Your task to perform on an android device: Open Android settings Image 0: 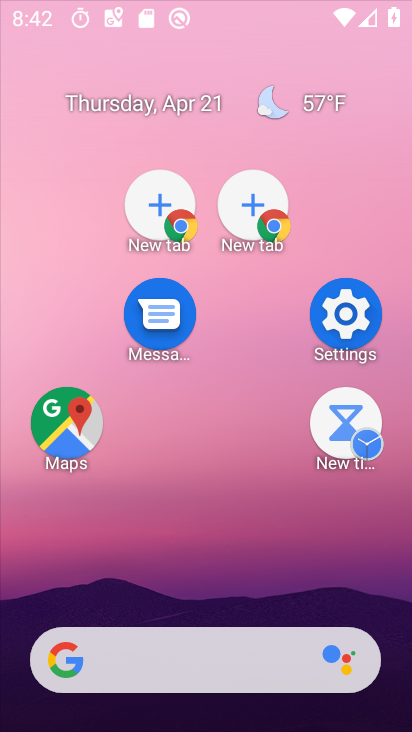
Step 0: drag from (326, 682) to (274, 126)
Your task to perform on an android device: Open Android settings Image 1: 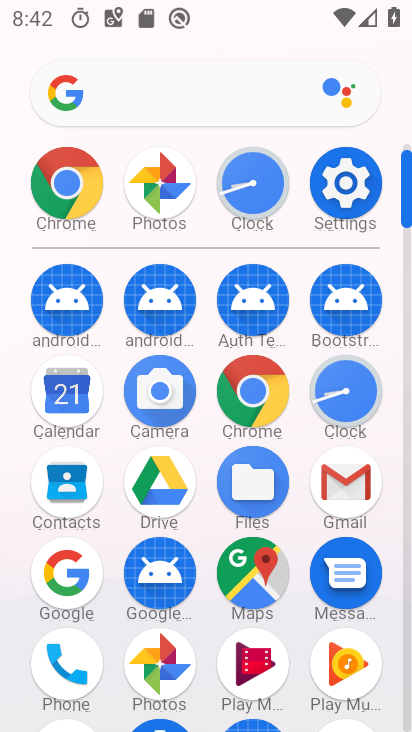
Step 1: drag from (225, 397) to (173, 114)
Your task to perform on an android device: Open Android settings Image 2: 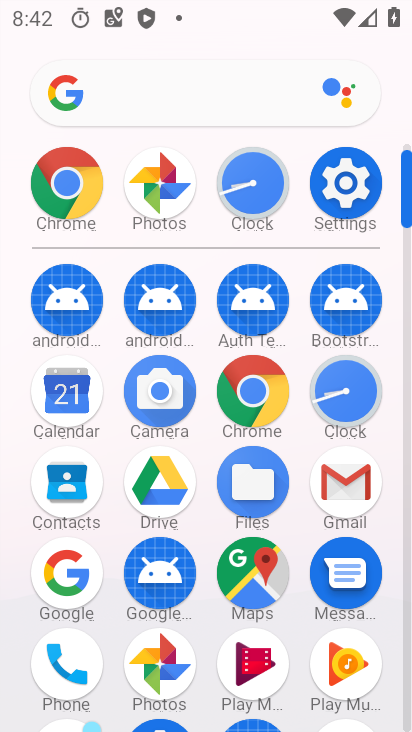
Step 2: click (347, 181)
Your task to perform on an android device: Open Android settings Image 3: 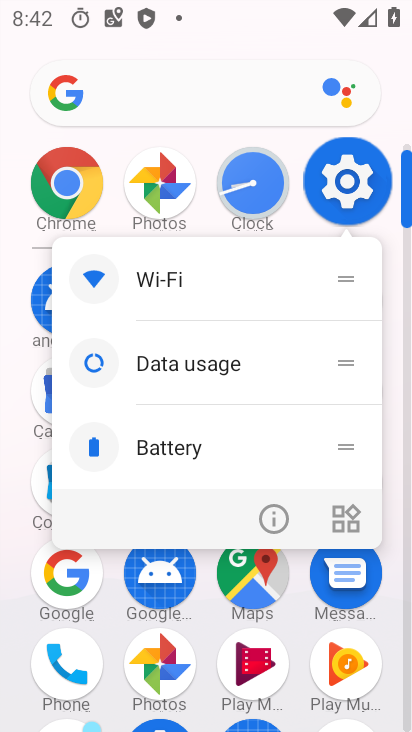
Step 3: click (352, 175)
Your task to perform on an android device: Open Android settings Image 4: 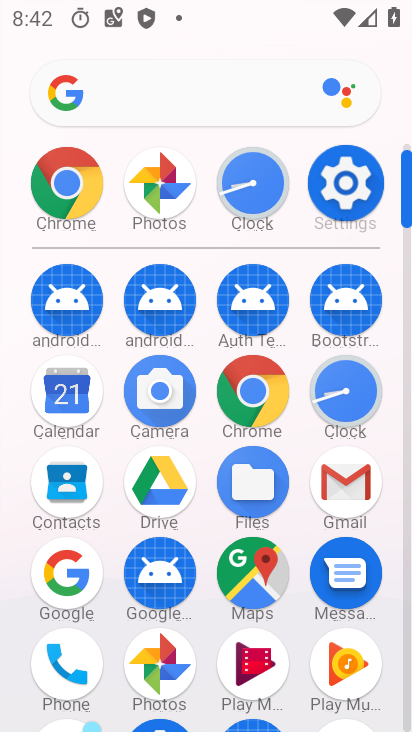
Step 4: click (354, 173)
Your task to perform on an android device: Open Android settings Image 5: 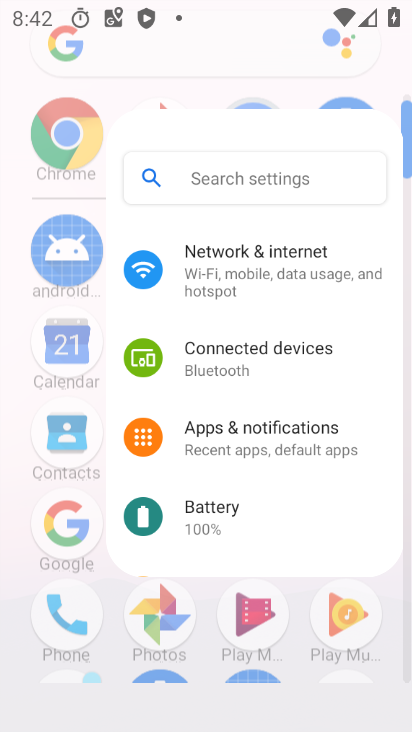
Step 5: click (355, 174)
Your task to perform on an android device: Open Android settings Image 6: 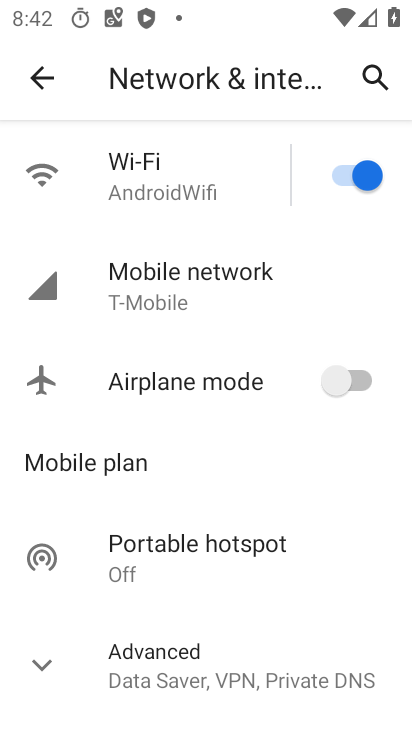
Step 6: drag from (239, 589) to (179, 215)
Your task to perform on an android device: Open Android settings Image 7: 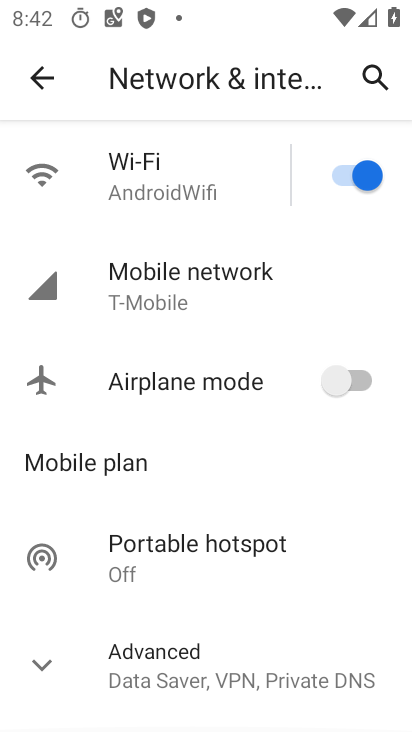
Step 7: drag from (174, 461) to (168, 190)
Your task to perform on an android device: Open Android settings Image 8: 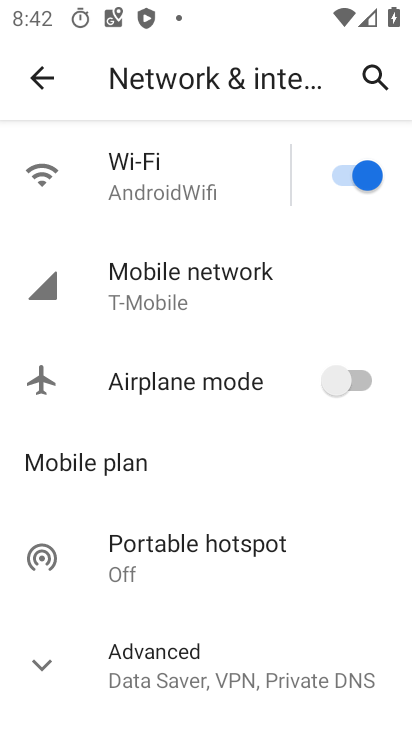
Step 8: drag from (184, 562) to (191, 271)
Your task to perform on an android device: Open Android settings Image 9: 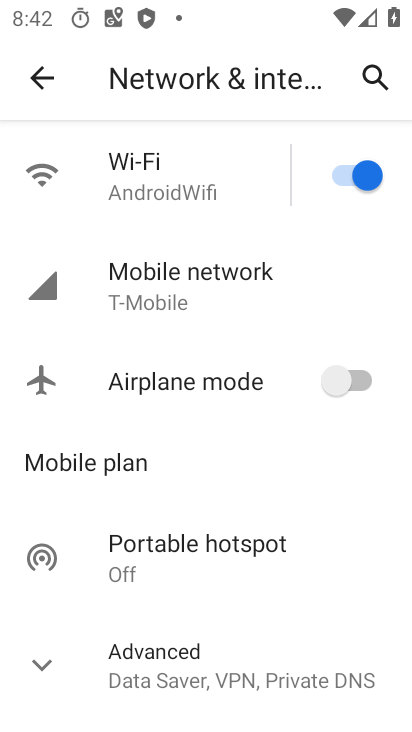
Step 9: click (41, 76)
Your task to perform on an android device: Open Android settings Image 10: 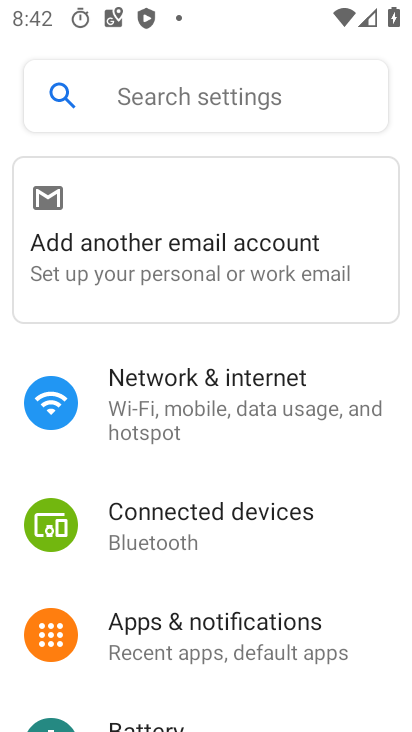
Step 10: drag from (174, 481) to (162, 278)
Your task to perform on an android device: Open Android settings Image 11: 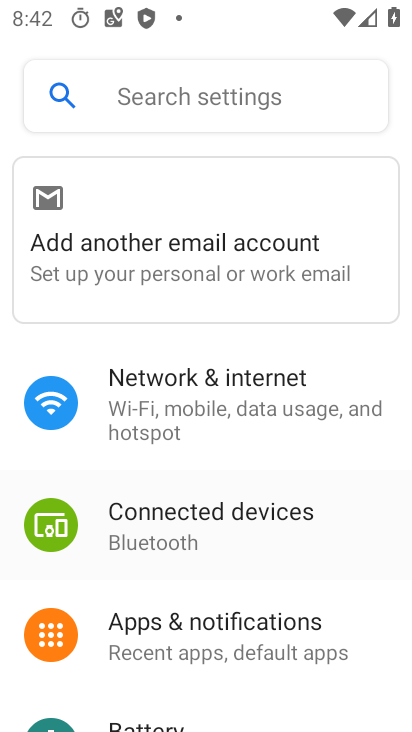
Step 11: drag from (181, 451) to (169, 331)
Your task to perform on an android device: Open Android settings Image 12: 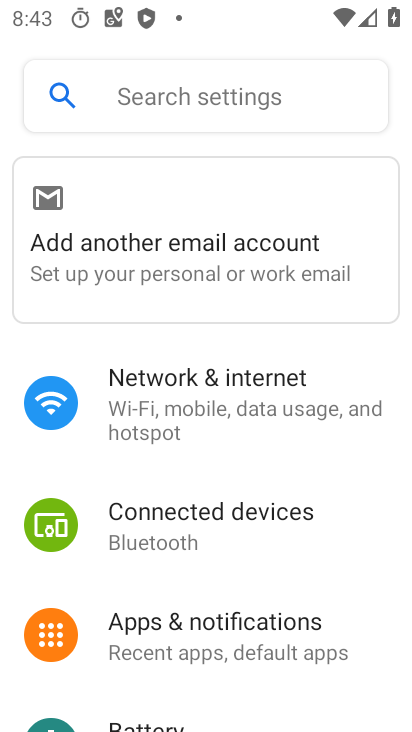
Step 12: drag from (250, 572) to (209, 308)
Your task to perform on an android device: Open Android settings Image 13: 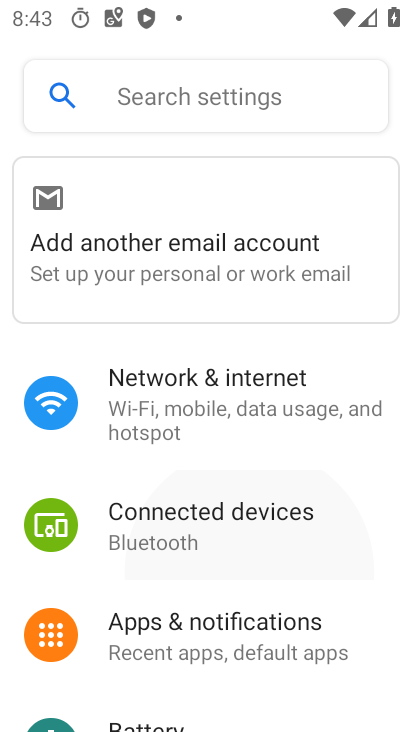
Step 13: drag from (257, 512) to (235, 260)
Your task to perform on an android device: Open Android settings Image 14: 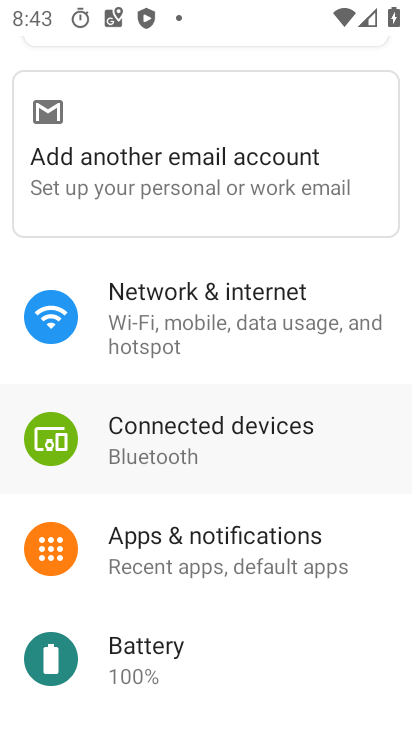
Step 14: drag from (289, 526) to (261, 286)
Your task to perform on an android device: Open Android settings Image 15: 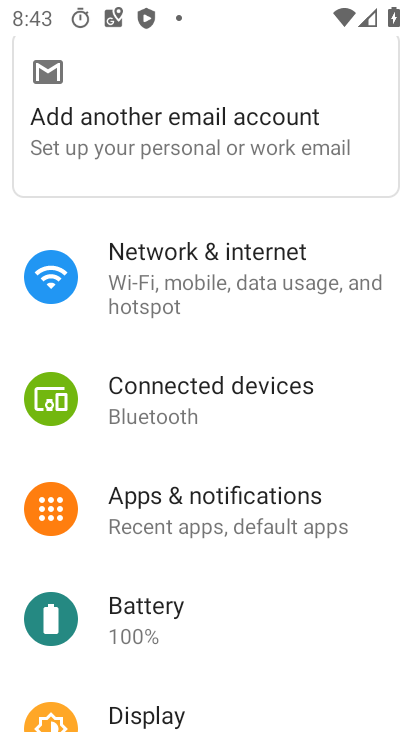
Step 15: drag from (177, 596) to (153, 213)
Your task to perform on an android device: Open Android settings Image 16: 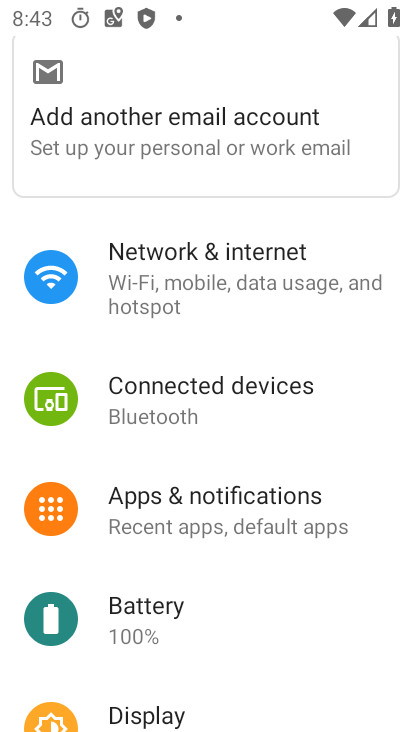
Step 16: drag from (229, 206) to (202, 322)
Your task to perform on an android device: Open Android settings Image 17: 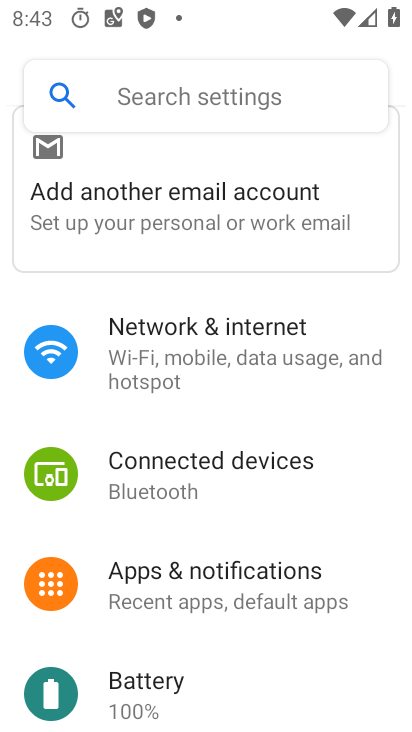
Step 17: drag from (220, 147) to (198, 211)
Your task to perform on an android device: Open Android settings Image 18: 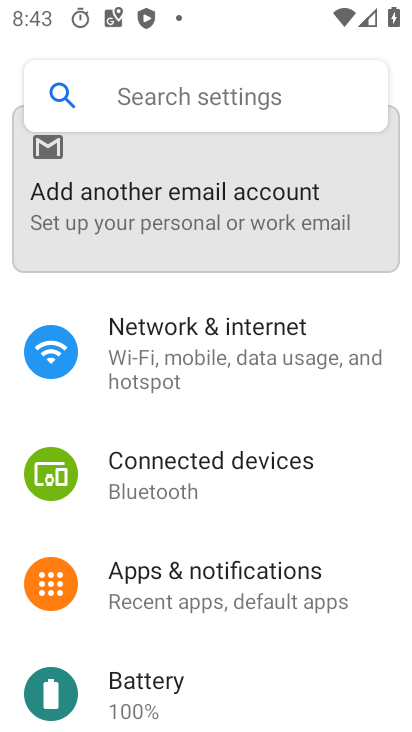
Step 18: drag from (193, 220) to (259, 35)
Your task to perform on an android device: Open Android settings Image 19: 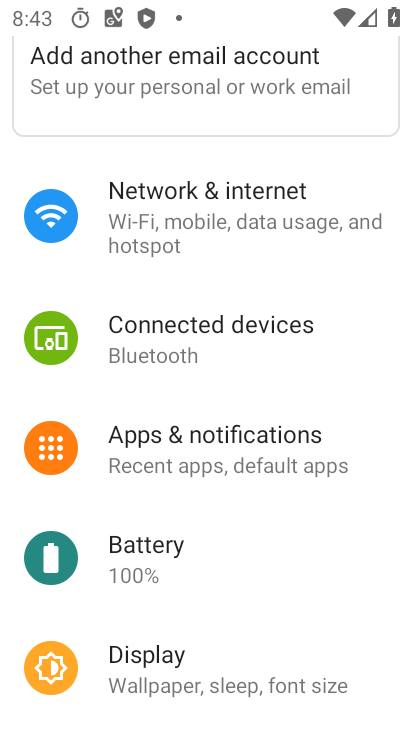
Step 19: drag from (125, 354) to (153, 220)
Your task to perform on an android device: Open Android settings Image 20: 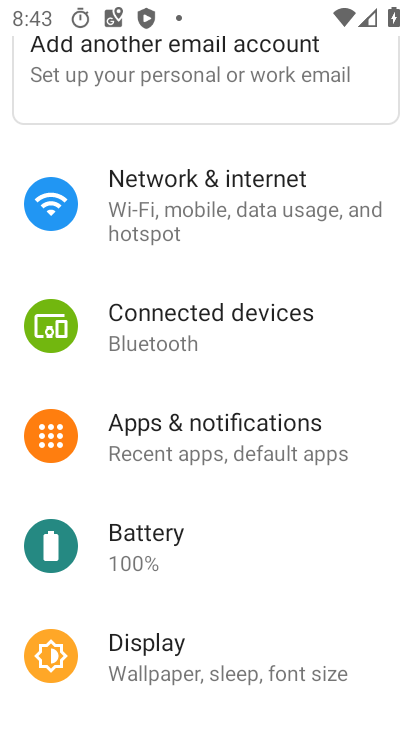
Step 20: click (181, 250)
Your task to perform on an android device: Open Android settings Image 21: 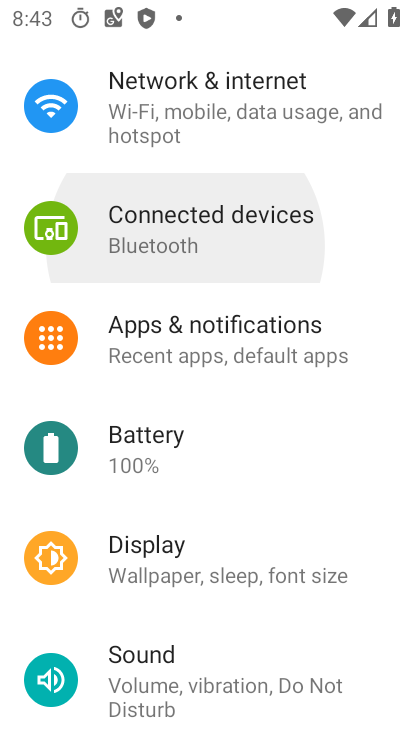
Step 21: drag from (202, 254) to (213, 195)
Your task to perform on an android device: Open Android settings Image 22: 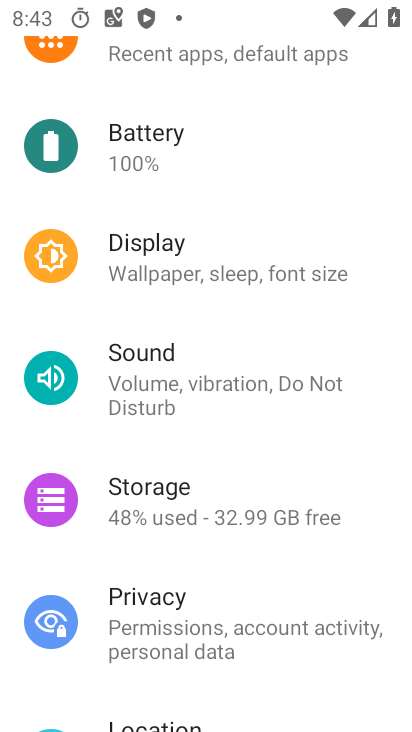
Step 22: drag from (222, 596) to (214, 185)
Your task to perform on an android device: Open Android settings Image 23: 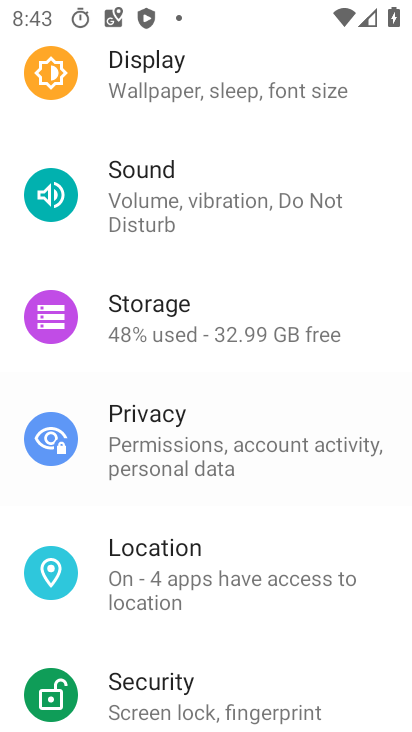
Step 23: drag from (256, 528) to (246, 208)
Your task to perform on an android device: Open Android settings Image 24: 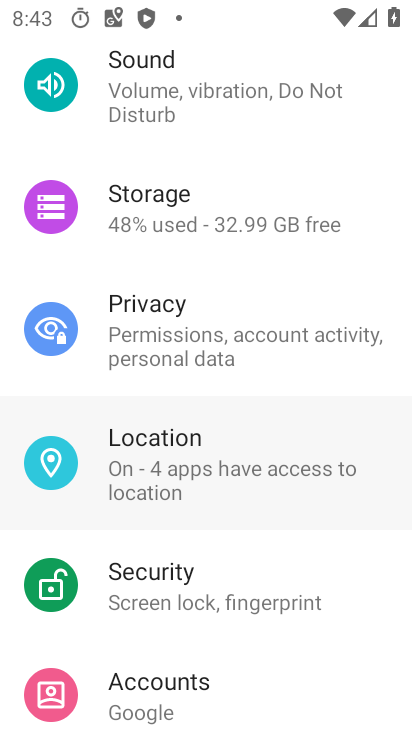
Step 24: drag from (177, 285) to (162, 177)
Your task to perform on an android device: Open Android settings Image 25: 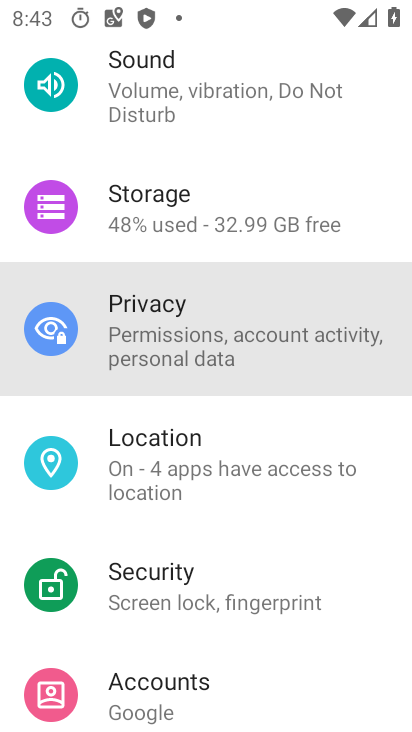
Step 25: drag from (175, 396) to (175, 127)
Your task to perform on an android device: Open Android settings Image 26: 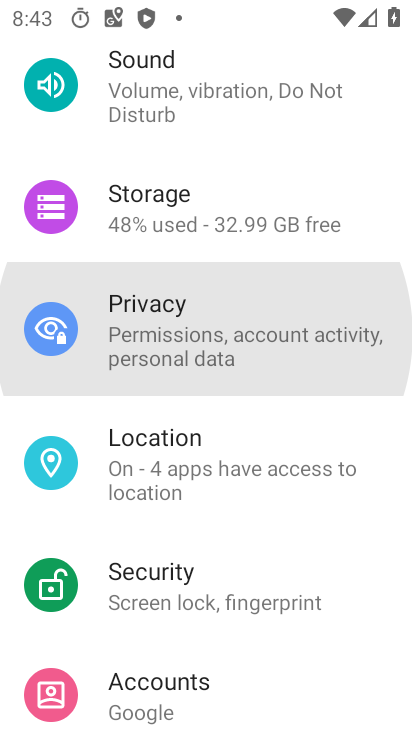
Step 26: drag from (238, 319) to (168, 72)
Your task to perform on an android device: Open Android settings Image 27: 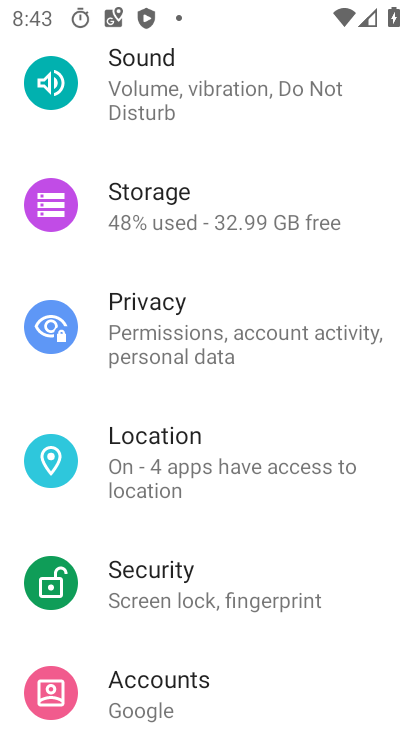
Step 27: drag from (229, 585) to (215, 241)
Your task to perform on an android device: Open Android settings Image 28: 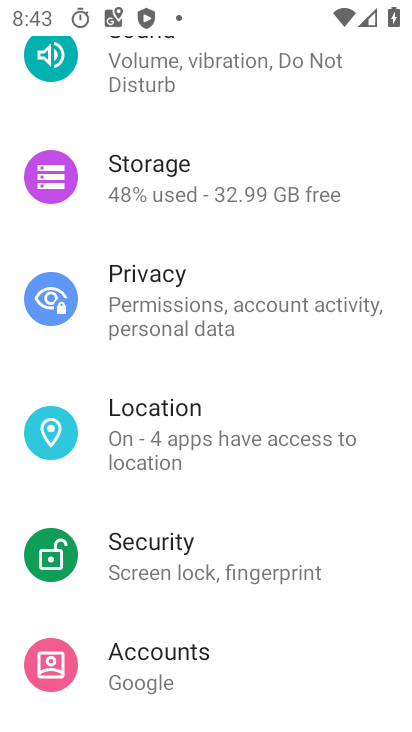
Step 28: drag from (132, 426) to (109, 249)
Your task to perform on an android device: Open Android settings Image 29: 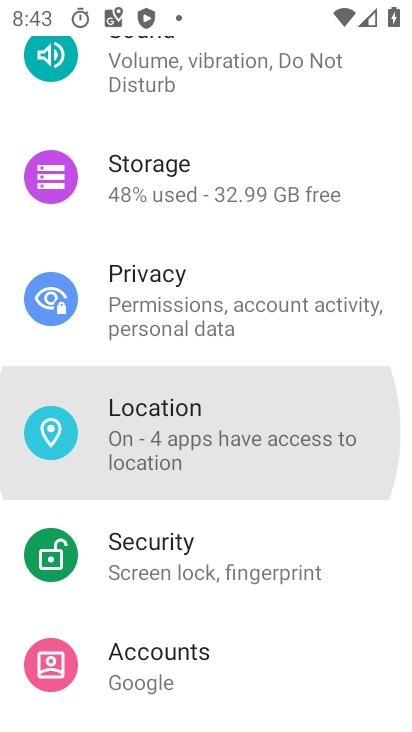
Step 29: drag from (190, 589) to (132, 62)
Your task to perform on an android device: Open Android settings Image 30: 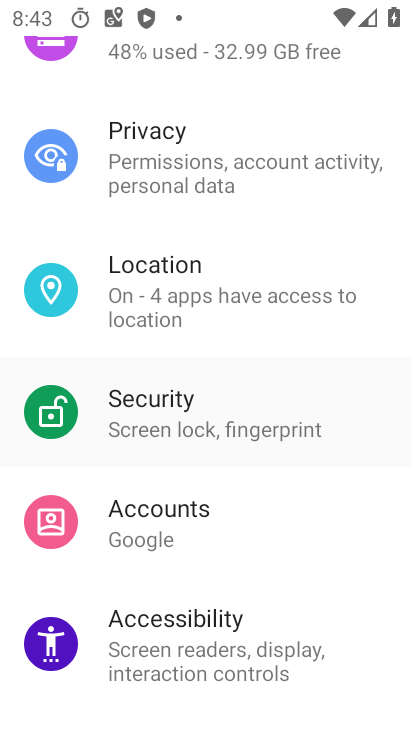
Step 30: drag from (196, 284) to (160, 136)
Your task to perform on an android device: Open Android settings Image 31: 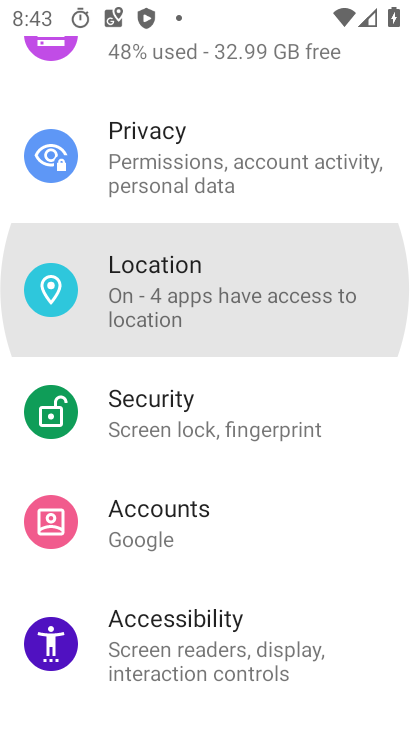
Step 31: drag from (212, 426) to (187, 120)
Your task to perform on an android device: Open Android settings Image 32: 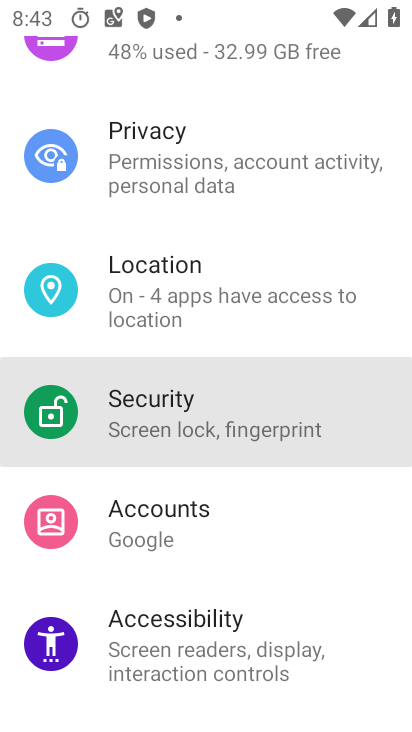
Step 32: drag from (184, 477) to (222, 91)
Your task to perform on an android device: Open Android settings Image 33: 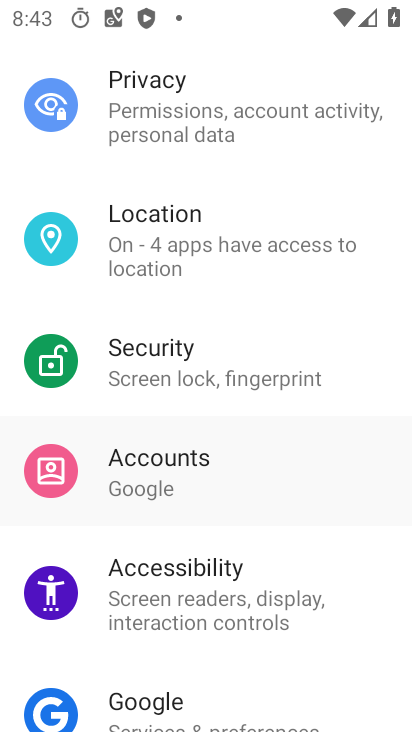
Step 33: drag from (278, 492) to (278, 101)
Your task to perform on an android device: Open Android settings Image 34: 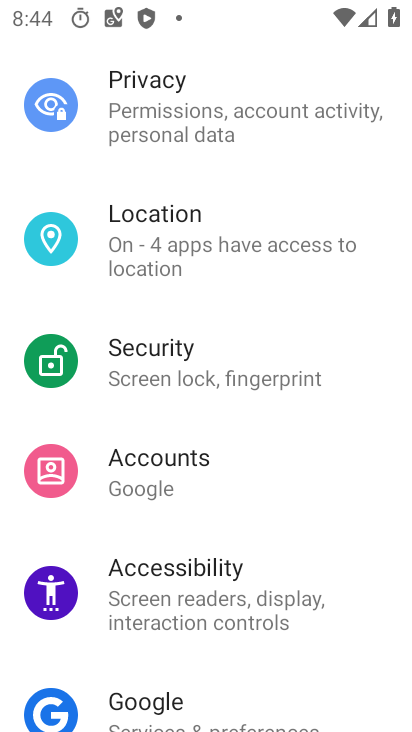
Step 34: drag from (238, 539) to (233, 204)
Your task to perform on an android device: Open Android settings Image 35: 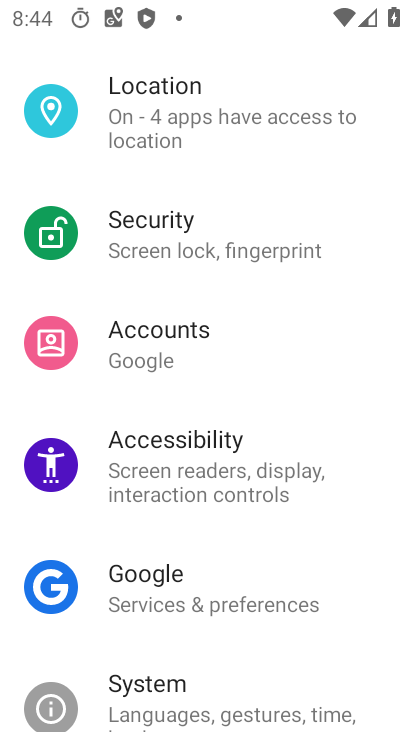
Step 35: drag from (222, 268) to (214, 104)
Your task to perform on an android device: Open Android settings Image 36: 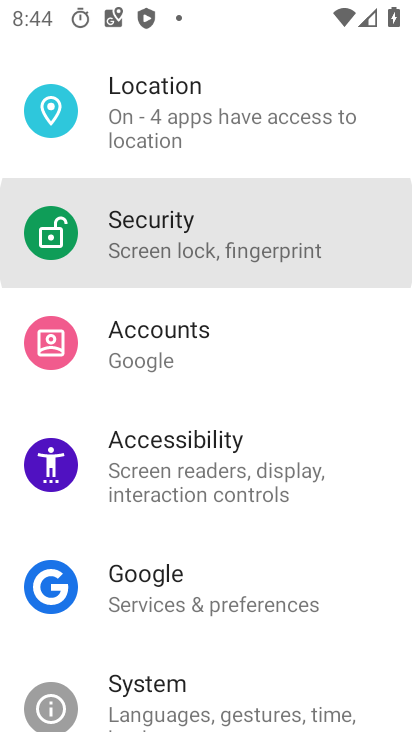
Step 36: drag from (165, 64) to (161, 23)
Your task to perform on an android device: Open Android settings Image 37: 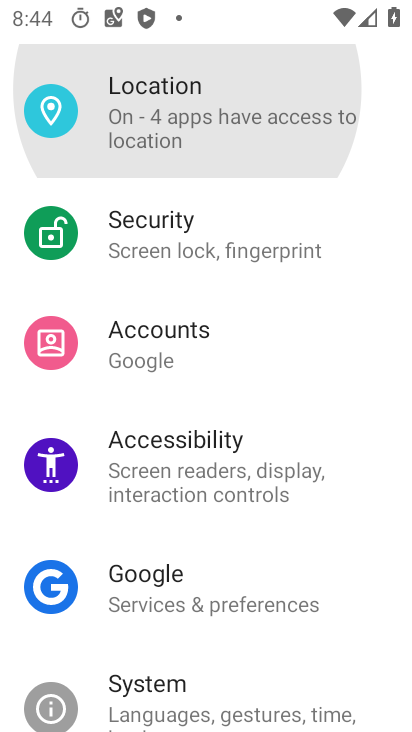
Step 37: drag from (189, 439) to (189, 74)
Your task to perform on an android device: Open Android settings Image 38: 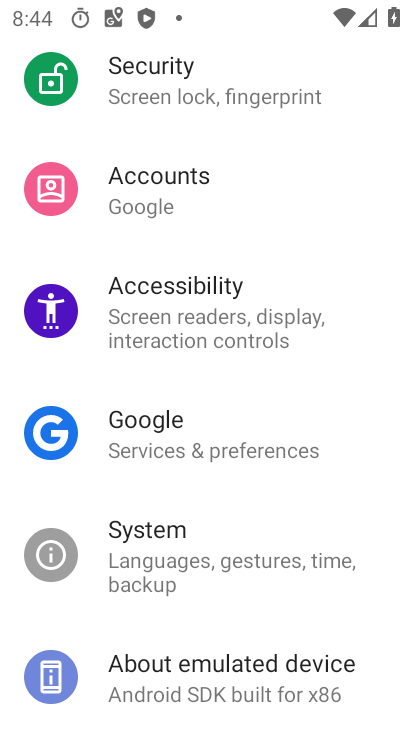
Step 38: drag from (250, 637) to (241, 175)
Your task to perform on an android device: Open Android settings Image 39: 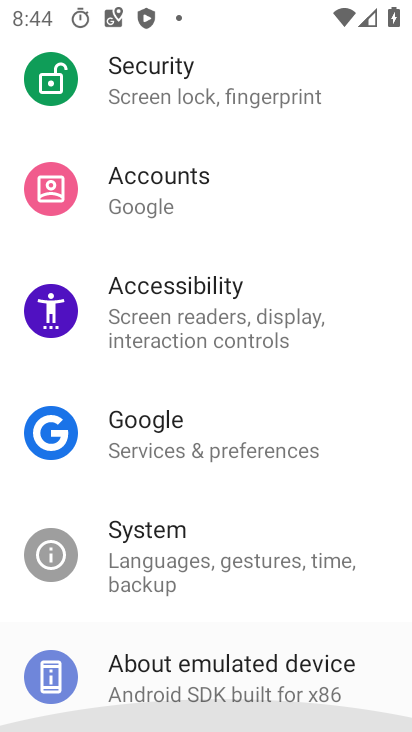
Step 39: drag from (225, 260) to (225, 153)
Your task to perform on an android device: Open Android settings Image 40: 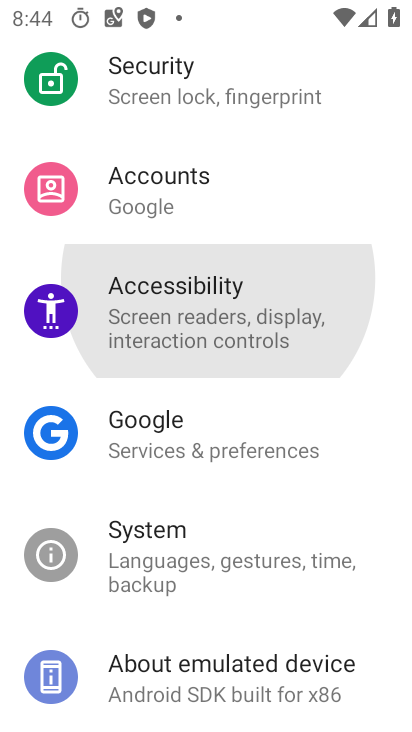
Step 40: drag from (216, 420) to (197, 89)
Your task to perform on an android device: Open Android settings Image 41: 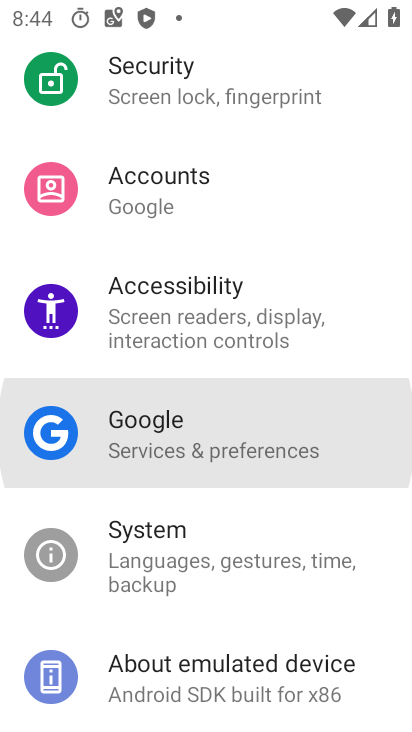
Step 41: drag from (143, 255) to (131, 75)
Your task to perform on an android device: Open Android settings Image 42: 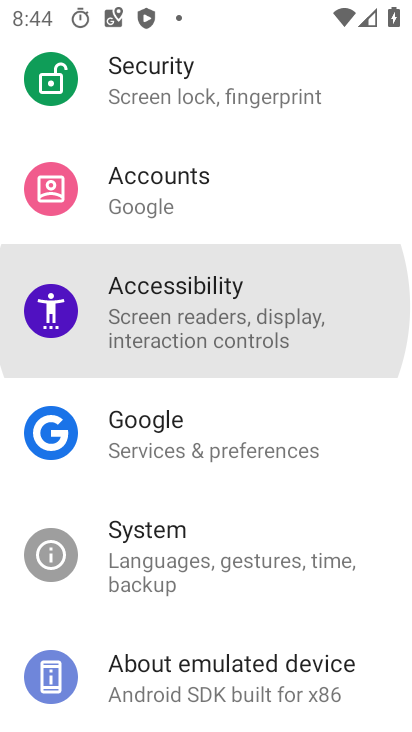
Step 42: drag from (215, 399) to (173, 73)
Your task to perform on an android device: Open Android settings Image 43: 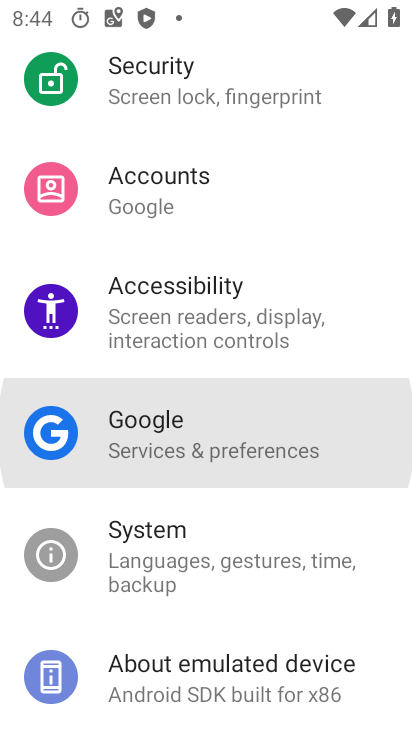
Step 43: drag from (162, 315) to (144, 61)
Your task to perform on an android device: Open Android settings Image 44: 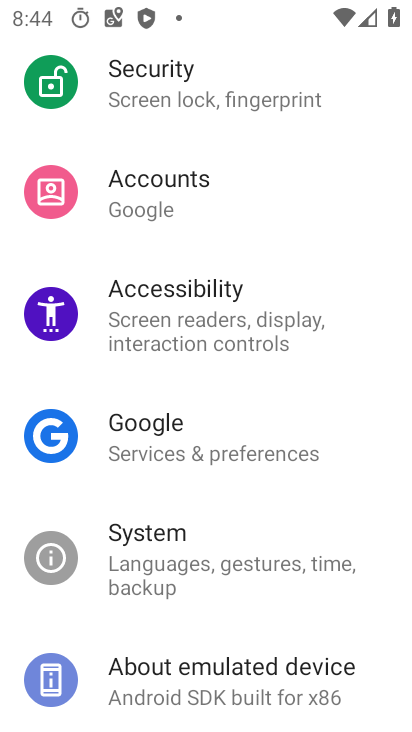
Step 44: drag from (212, 502) to (217, 140)
Your task to perform on an android device: Open Android settings Image 45: 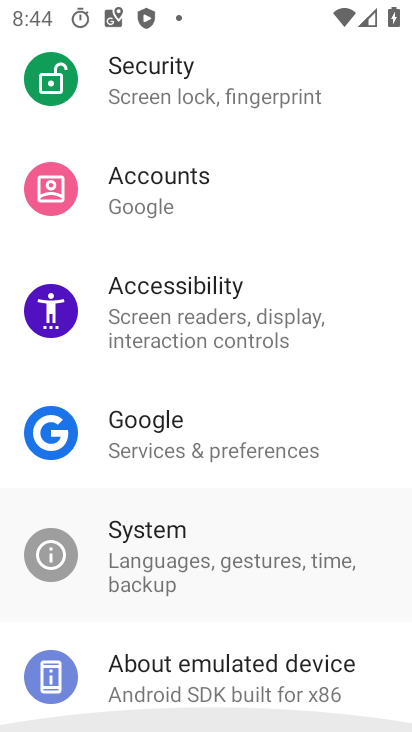
Step 45: drag from (282, 372) to (282, 200)
Your task to perform on an android device: Open Android settings Image 46: 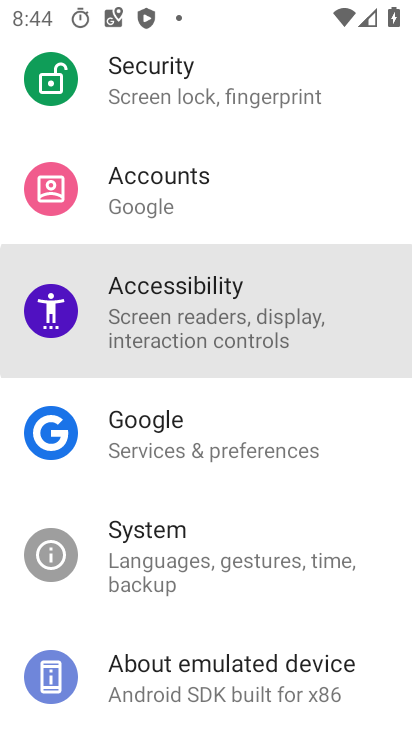
Step 46: drag from (278, 456) to (244, 151)
Your task to perform on an android device: Open Android settings Image 47: 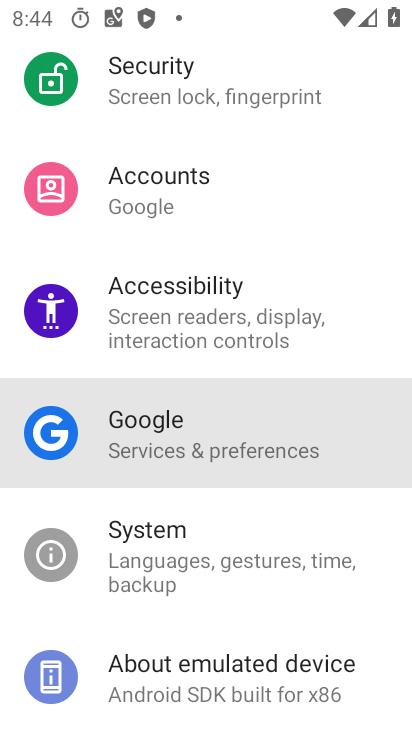
Step 47: drag from (230, 434) to (262, 166)
Your task to perform on an android device: Open Android settings Image 48: 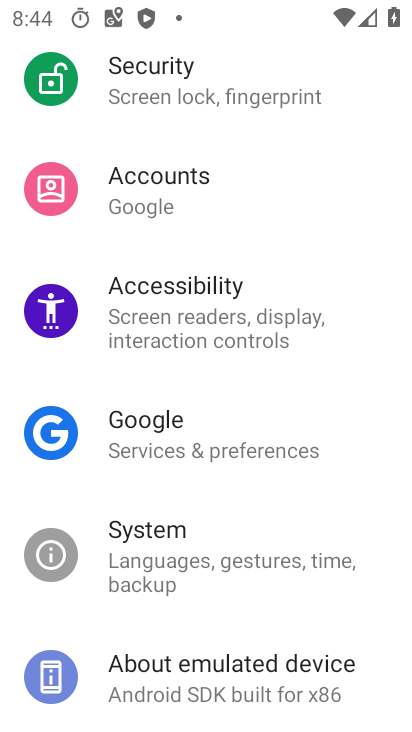
Step 48: click (194, 676)
Your task to perform on an android device: Open Android settings Image 49: 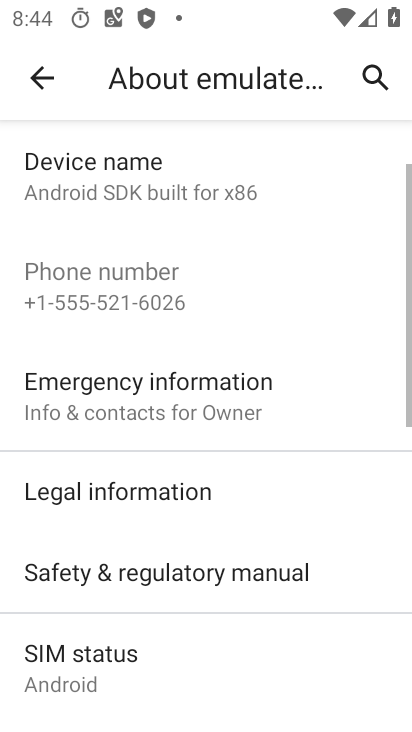
Step 49: click (36, 83)
Your task to perform on an android device: Open Android settings Image 50: 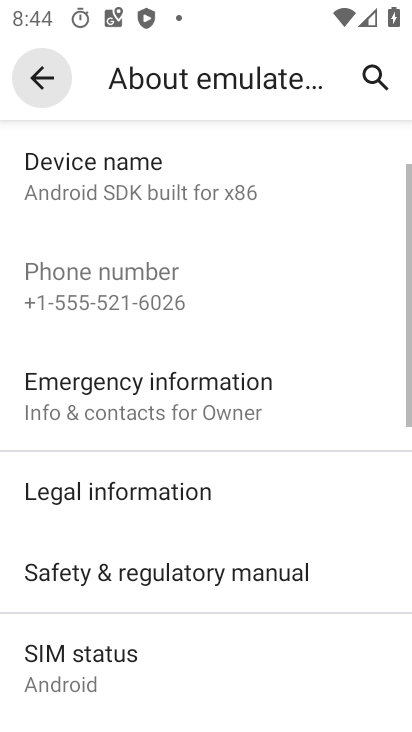
Step 50: click (43, 83)
Your task to perform on an android device: Open Android settings Image 51: 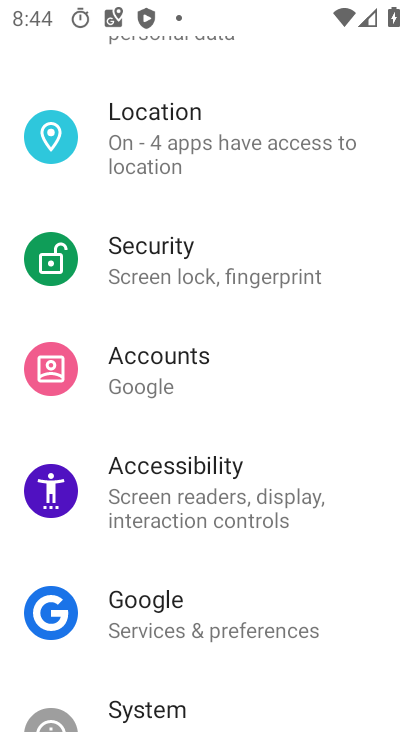
Step 51: drag from (198, 575) to (180, 147)
Your task to perform on an android device: Open Android settings Image 52: 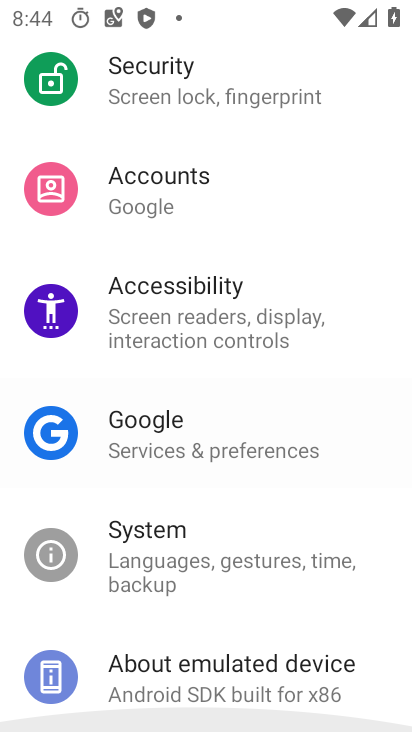
Step 52: click (192, 320)
Your task to perform on an android device: Open Android settings Image 53: 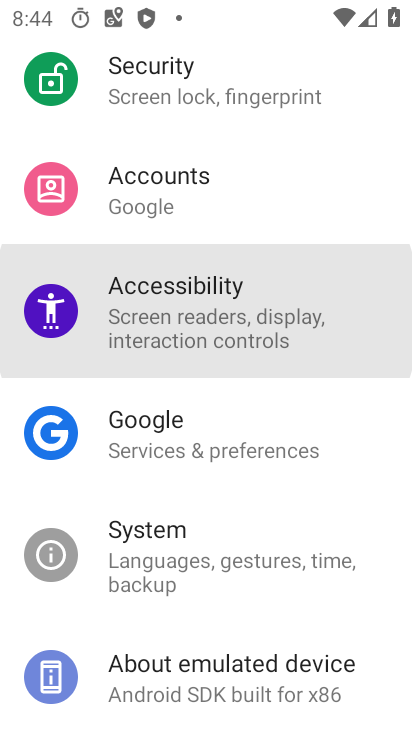
Step 53: drag from (235, 298) to (224, 177)
Your task to perform on an android device: Open Android settings Image 54: 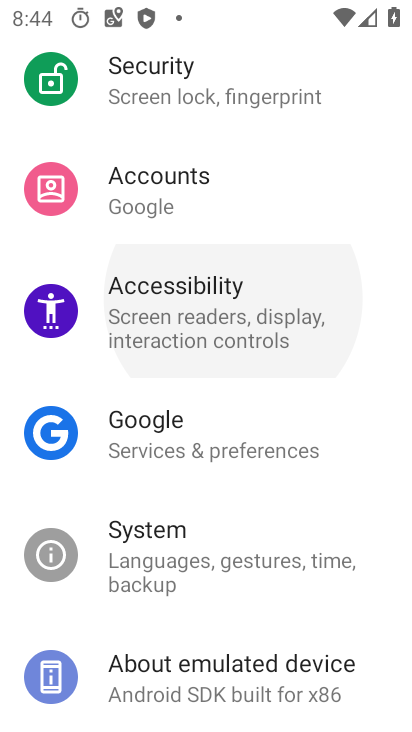
Step 54: drag from (247, 561) to (224, 107)
Your task to perform on an android device: Open Android settings Image 55: 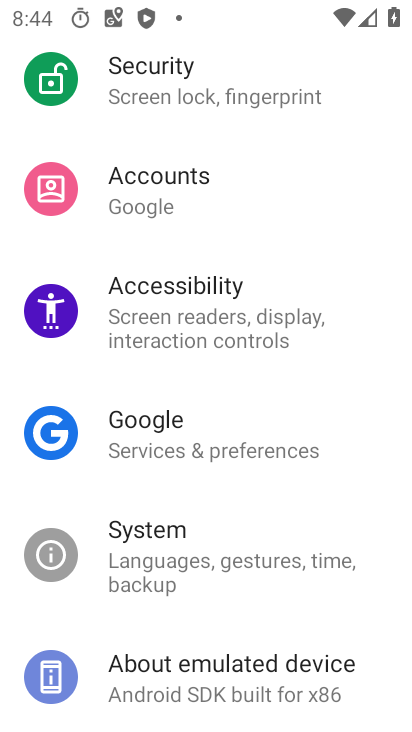
Step 55: drag from (140, 390) to (106, 624)
Your task to perform on an android device: Open Android settings Image 56: 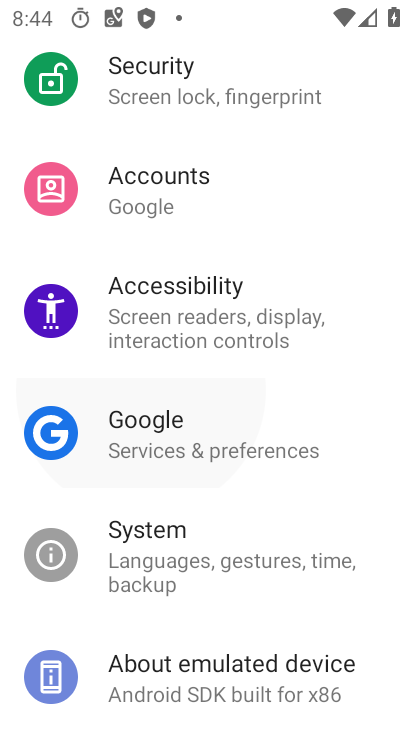
Step 56: drag from (158, 279) to (261, 729)
Your task to perform on an android device: Open Android settings Image 57: 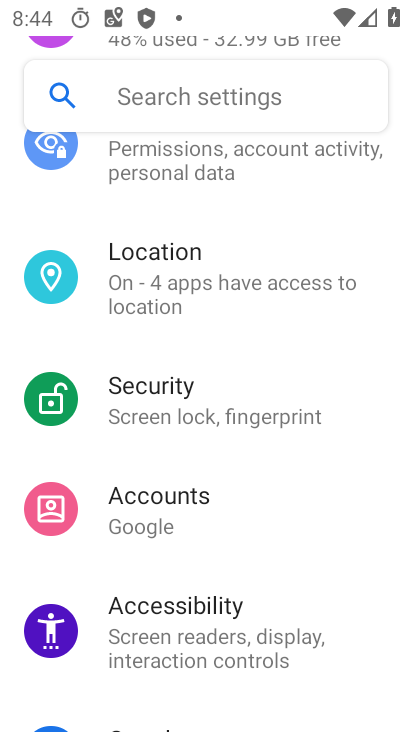
Step 57: drag from (238, 542) to (240, 182)
Your task to perform on an android device: Open Android settings Image 58: 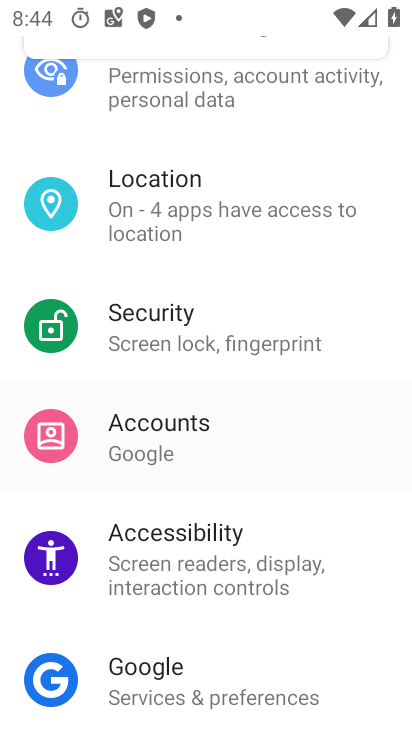
Step 58: drag from (234, 371) to (217, 143)
Your task to perform on an android device: Open Android settings Image 59: 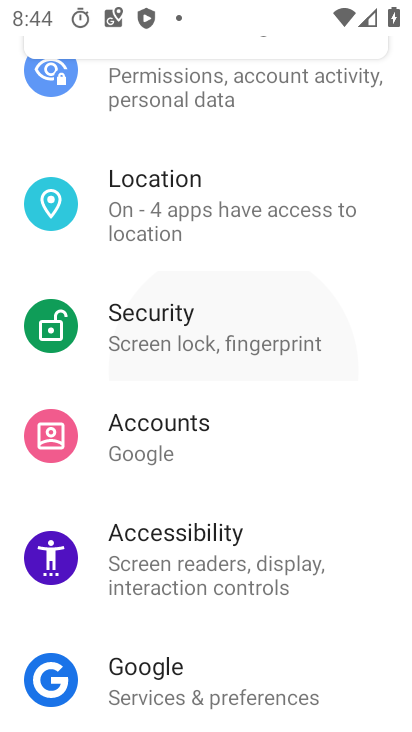
Step 59: drag from (207, 384) to (183, 62)
Your task to perform on an android device: Open Android settings Image 60: 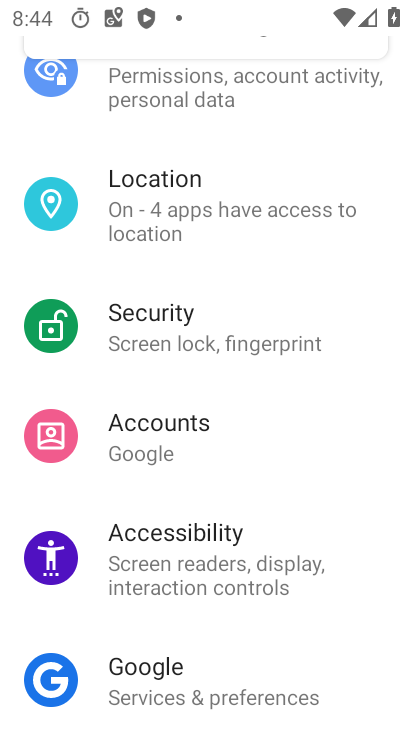
Step 60: drag from (192, 563) to (259, 70)
Your task to perform on an android device: Open Android settings Image 61: 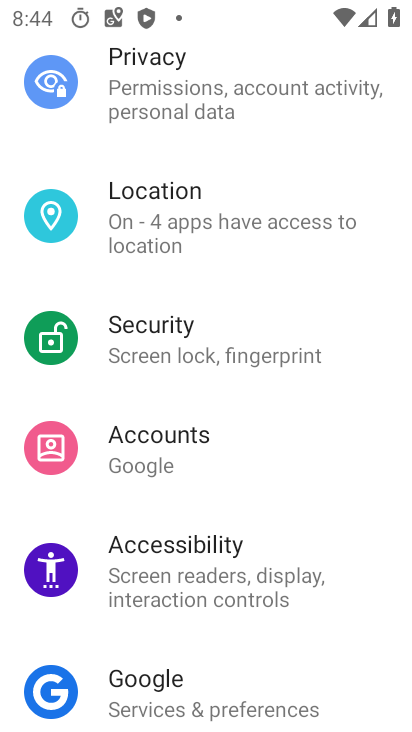
Step 61: drag from (280, 458) to (260, 61)
Your task to perform on an android device: Open Android settings Image 62: 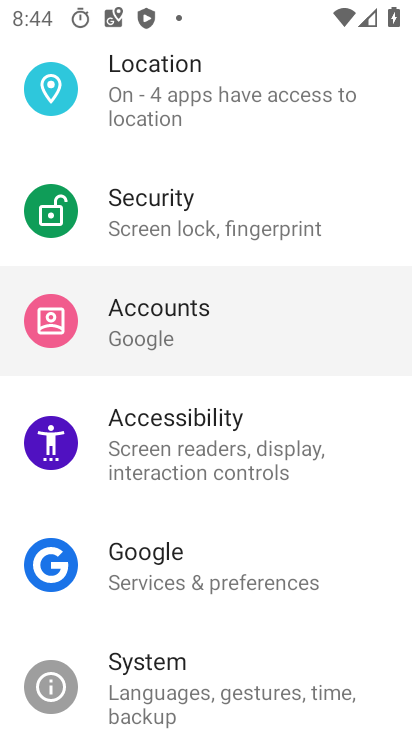
Step 62: drag from (243, 460) to (243, 240)
Your task to perform on an android device: Open Android settings Image 63: 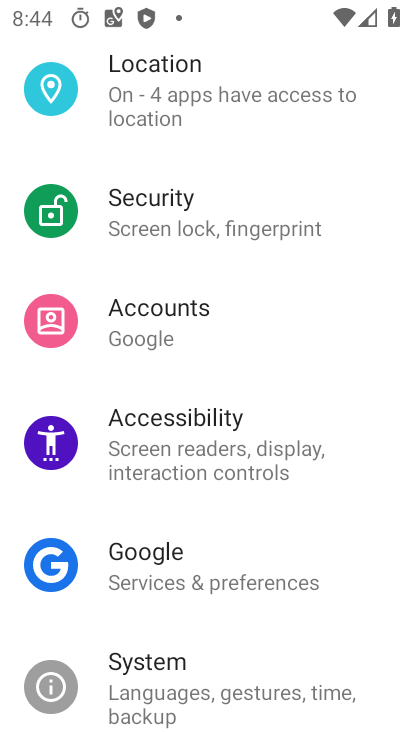
Step 63: drag from (204, 560) to (219, 254)
Your task to perform on an android device: Open Android settings Image 64: 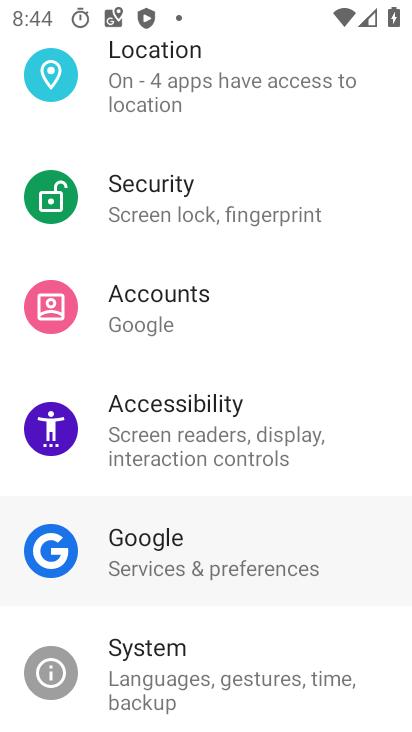
Step 64: drag from (273, 540) to (263, 155)
Your task to perform on an android device: Open Android settings Image 65: 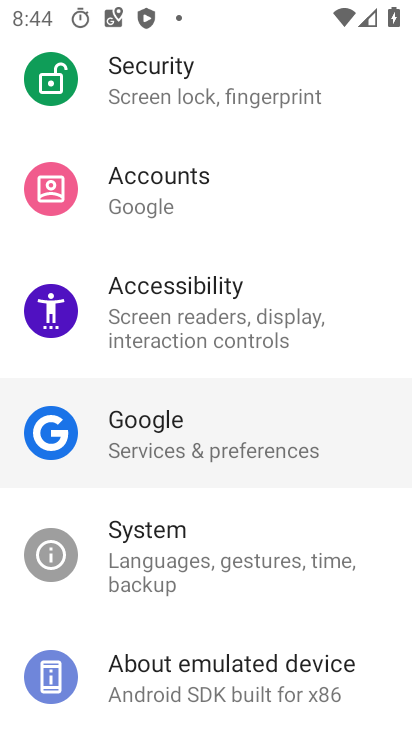
Step 65: drag from (267, 557) to (249, 141)
Your task to perform on an android device: Open Android settings Image 66: 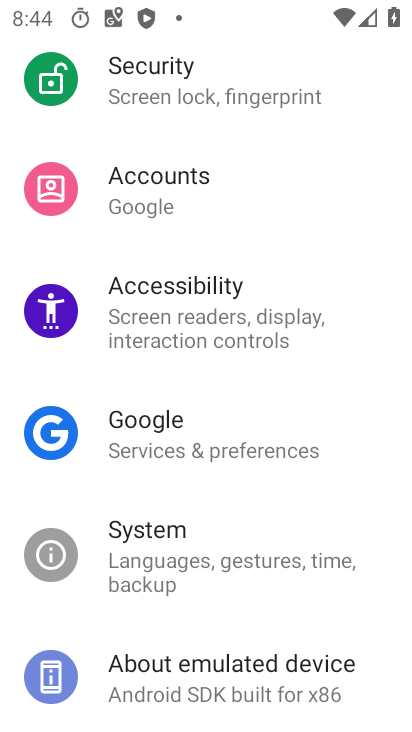
Step 66: drag from (245, 514) to (245, 75)
Your task to perform on an android device: Open Android settings Image 67: 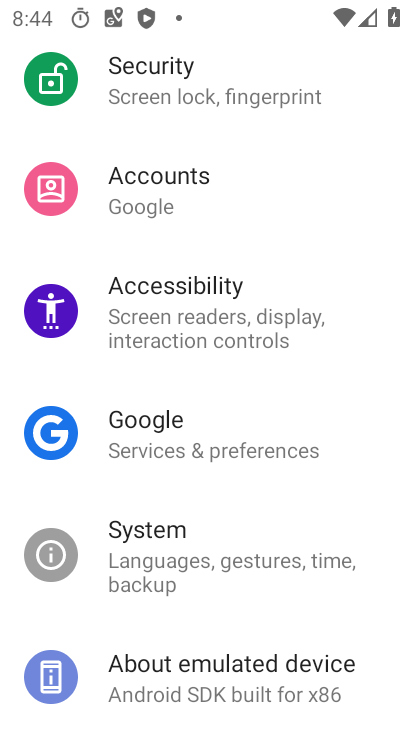
Step 67: click (226, 682)
Your task to perform on an android device: Open Android settings Image 68: 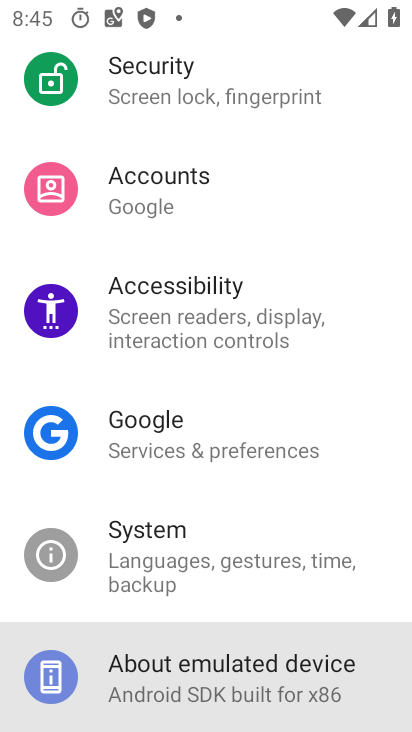
Step 68: click (227, 690)
Your task to perform on an android device: Open Android settings Image 69: 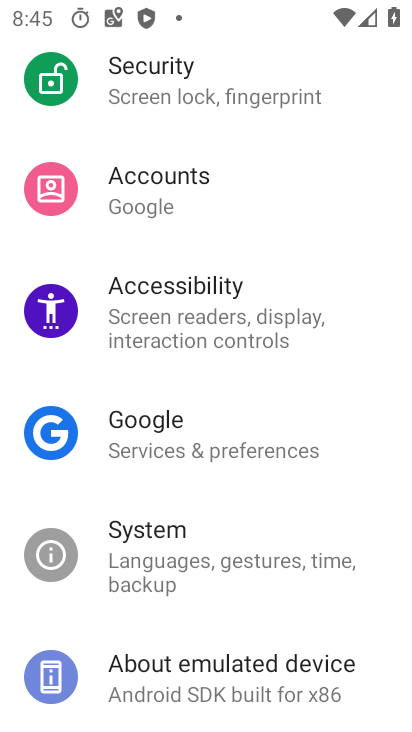
Step 69: click (230, 687)
Your task to perform on an android device: Open Android settings Image 70: 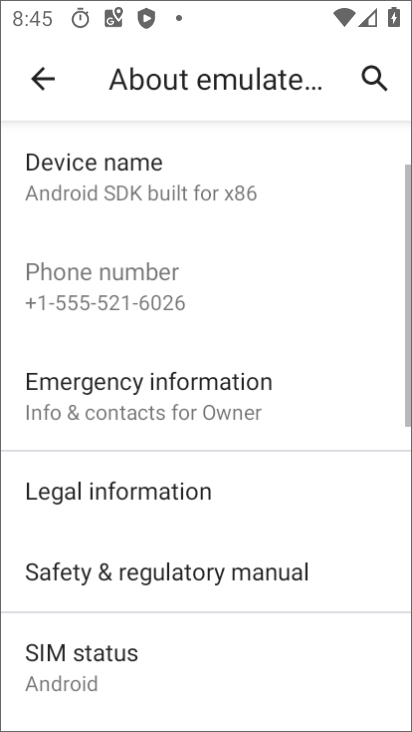
Step 70: click (230, 687)
Your task to perform on an android device: Open Android settings Image 71: 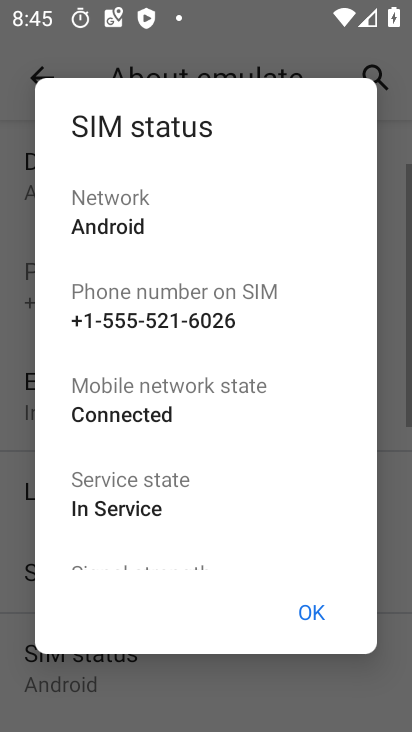
Step 71: click (311, 605)
Your task to perform on an android device: Open Android settings Image 72: 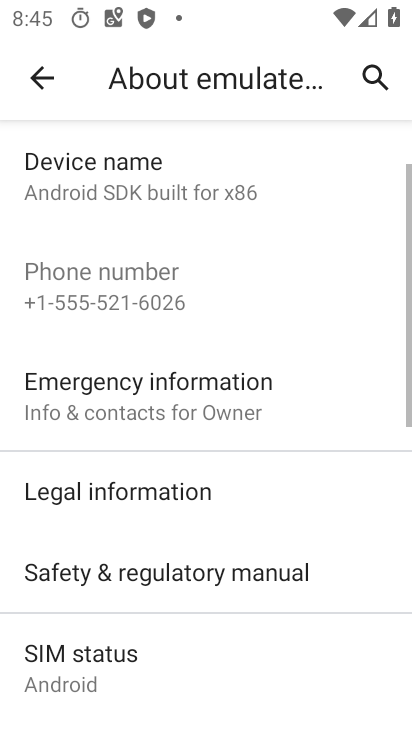
Step 72: drag from (181, 486) to (125, 167)
Your task to perform on an android device: Open Android settings Image 73: 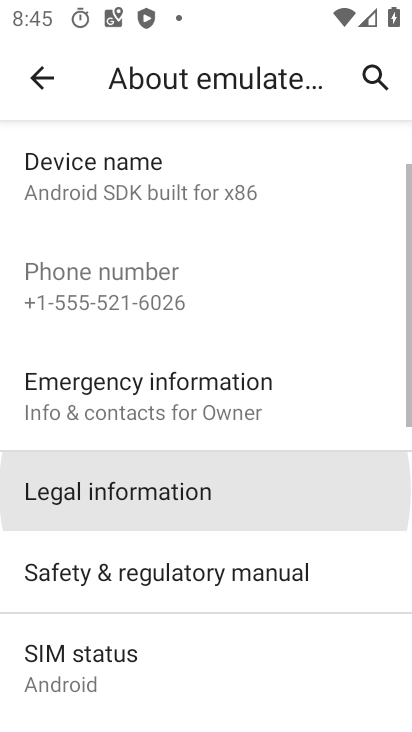
Step 73: drag from (168, 544) to (193, 143)
Your task to perform on an android device: Open Android settings Image 74: 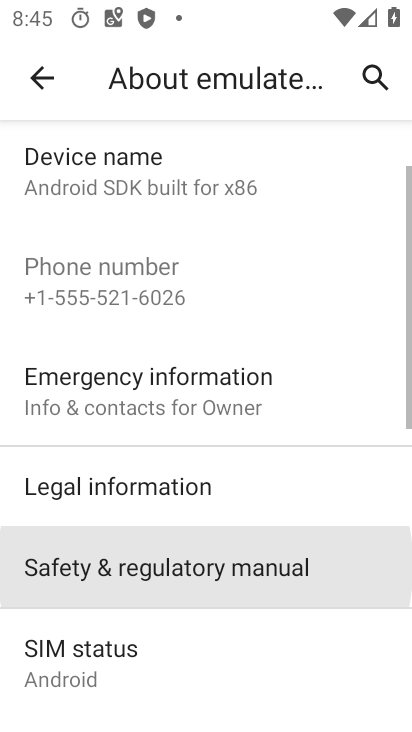
Step 74: drag from (263, 319) to (288, 109)
Your task to perform on an android device: Open Android settings Image 75: 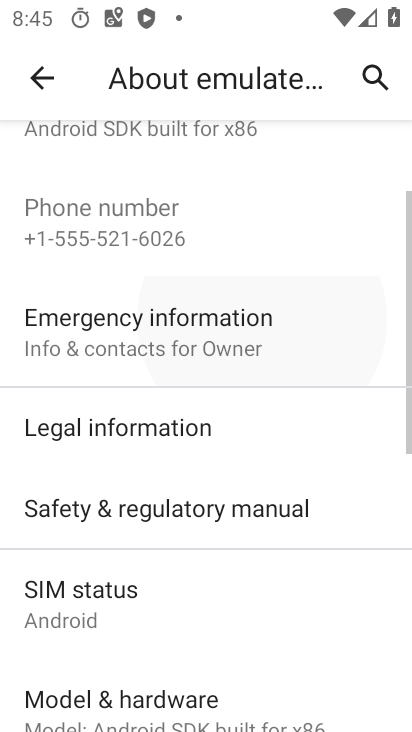
Step 75: drag from (191, 505) to (153, 11)
Your task to perform on an android device: Open Android settings Image 76: 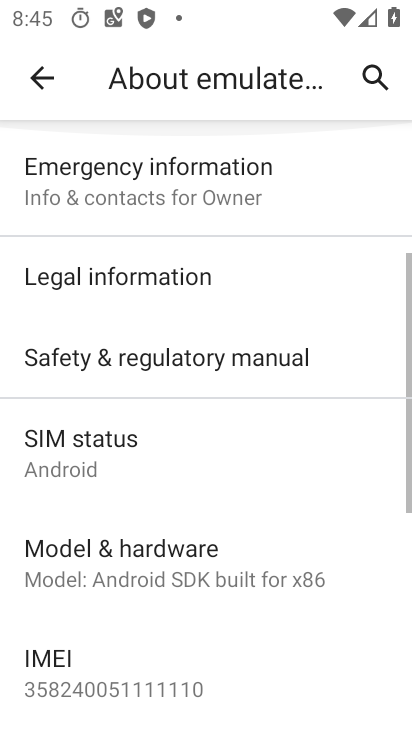
Step 76: drag from (170, 364) to (164, 105)
Your task to perform on an android device: Open Android settings Image 77: 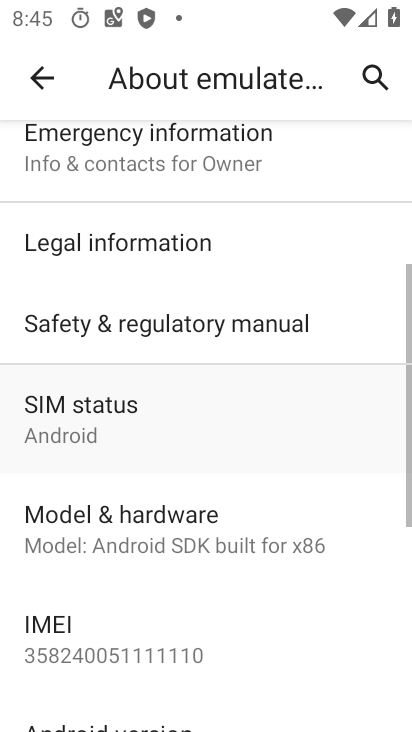
Step 77: click (177, 579)
Your task to perform on an android device: Open Android settings Image 78: 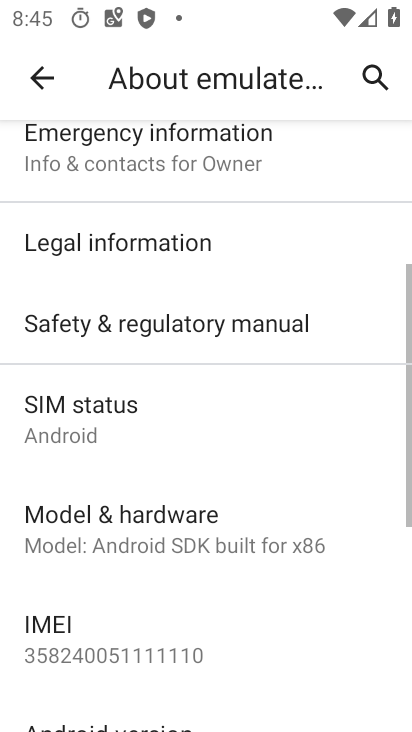
Step 78: task complete